Your task to perform on an android device: Open Google Chrome and open the bookmarks view Image 0: 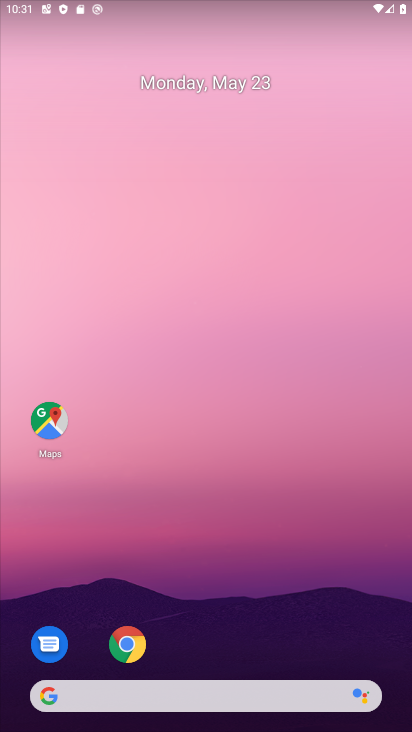
Step 0: drag from (296, 720) to (180, 146)
Your task to perform on an android device: Open Google Chrome and open the bookmarks view Image 1: 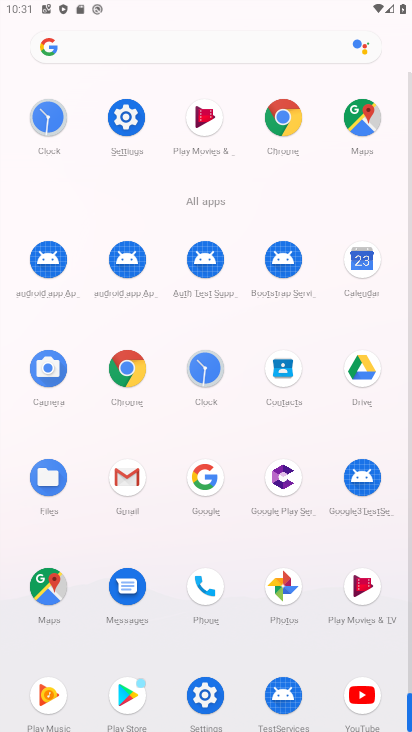
Step 1: click (120, 371)
Your task to perform on an android device: Open Google Chrome and open the bookmarks view Image 2: 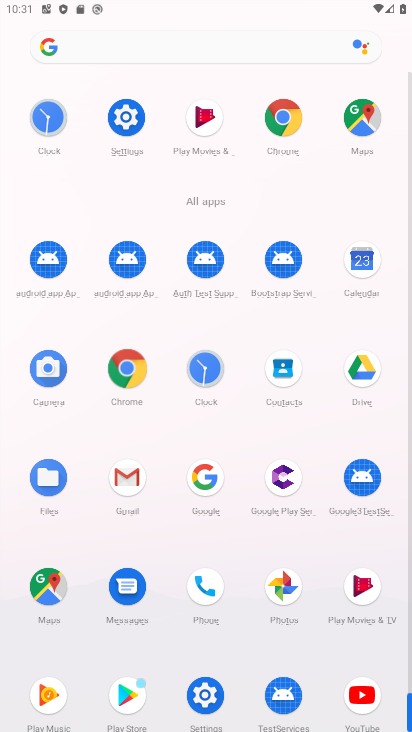
Step 2: click (120, 371)
Your task to perform on an android device: Open Google Chrome and open the bookmarks view Image 3: 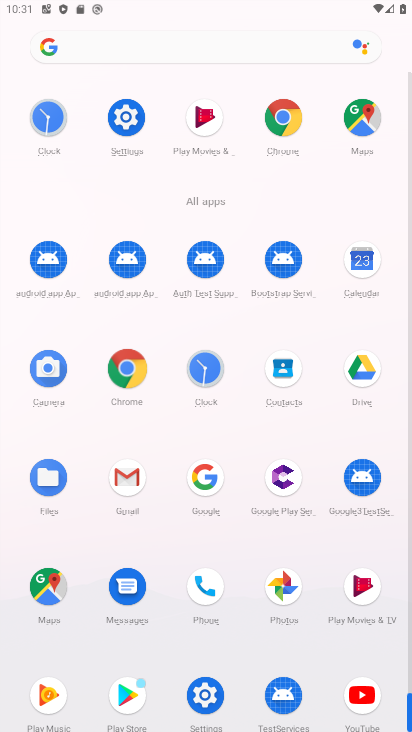
Step 3: click (124, 365)
Your task to perform on an android device: Open Google Chrome and open the bookmarks view Image 4: 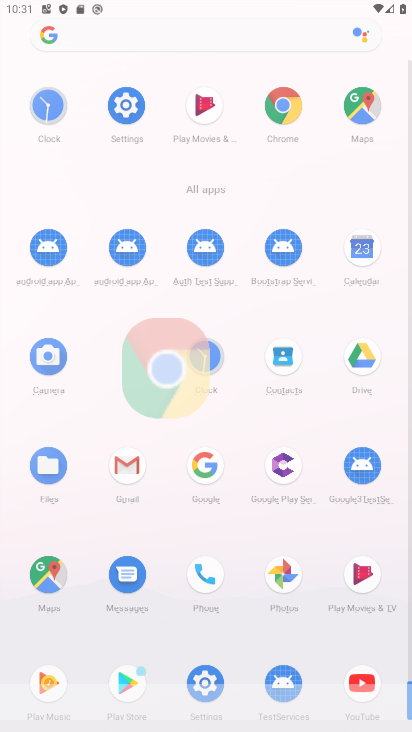
Step 4: click (136, 356)
Your task to perform on an android device: Open Google Chrome and open the bookmarks view Image 5: 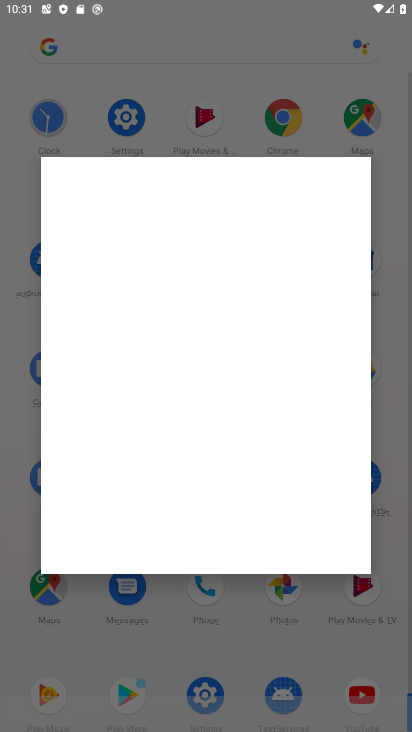
Step 5: click (141, 363)
Your task to perform on an android device: Open Google Chrome and open the bookmarks view Image 6: 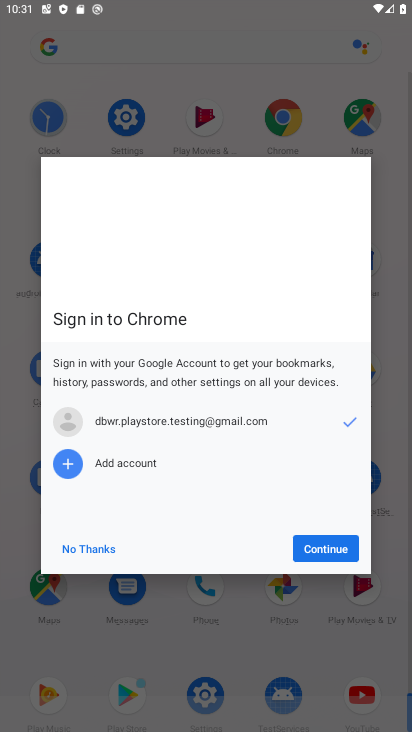
Step 6: click (306, 541)
Your task to perform on an android device: Open Google Chrome and open the bookmarks view Image 7: 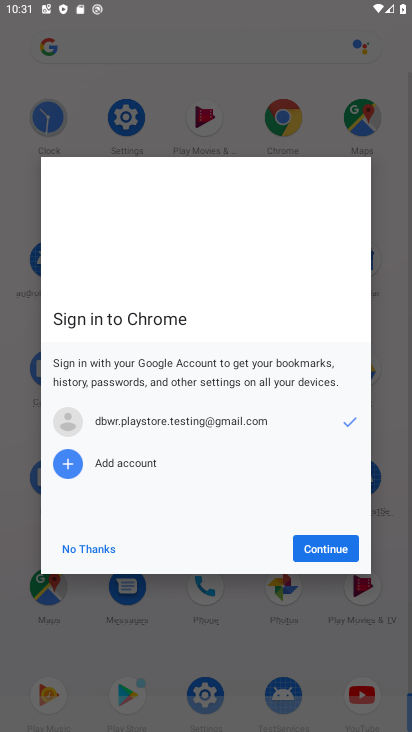
Step 7: click (307, 540)
Your task to perform on an android device: Open Google Chrome and open the bookmarks view Image 8: 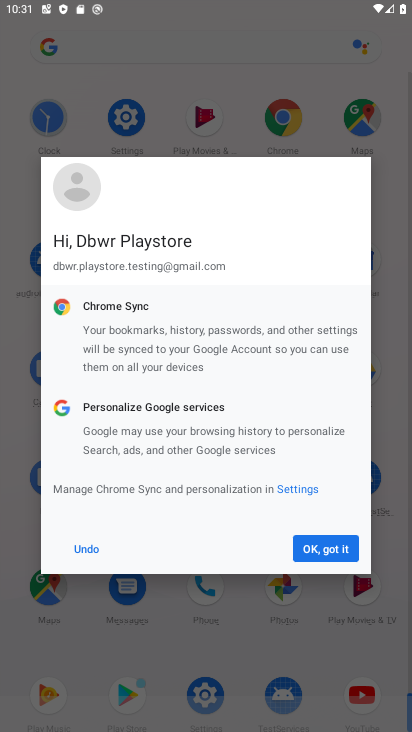
Step 8: click (318, 544)
Your task to perform on an android device: Open Google Chrome and open the bookmarks view Image 9: 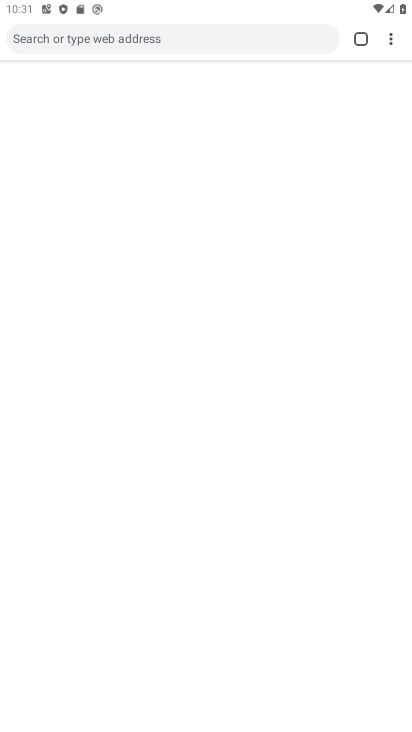
Step 9: click (330, 545)
Your task to perform on an android device: Open Google Chrome and open the bookmarks view Image 10: 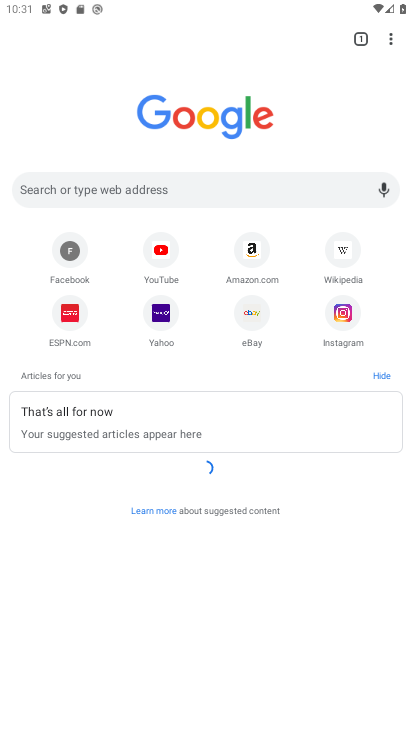
Step 10: drag from (386, 41) to (242, 149)
Your task to perform on an android device: Open Google Chrome and open the bookmarks view Image 11: 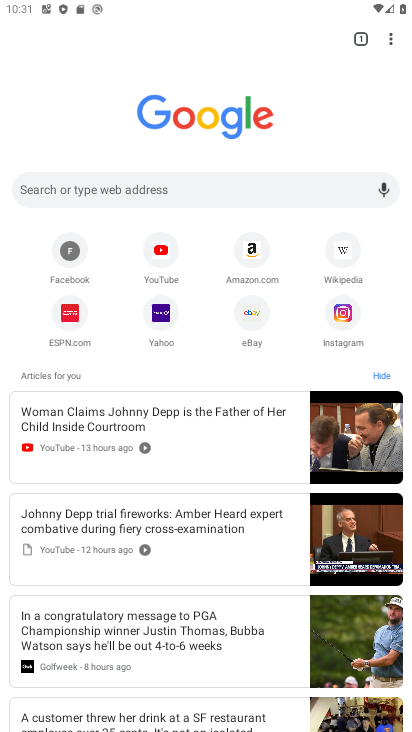
Step 11: click (245, 149)
Your task to perform on an android device: Open Google Chrome and open the bookmarks view Image 12: 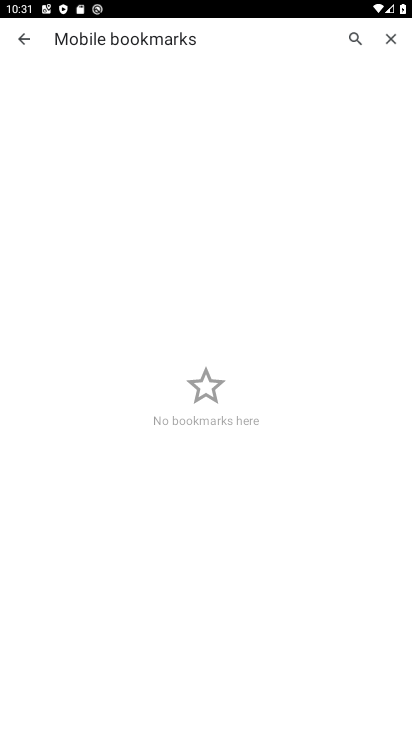
Step 12: task complete